Your task to perform on an android device: turn notification dots off Image 0: 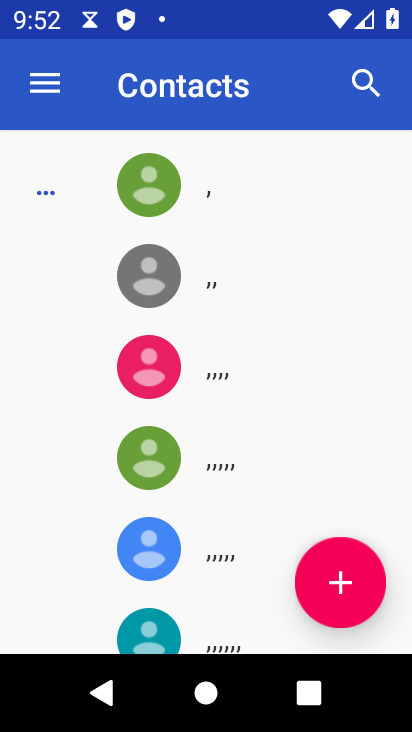
Step 0: press home button
Your task to perform on an android device: turn notification dots off Image 1: 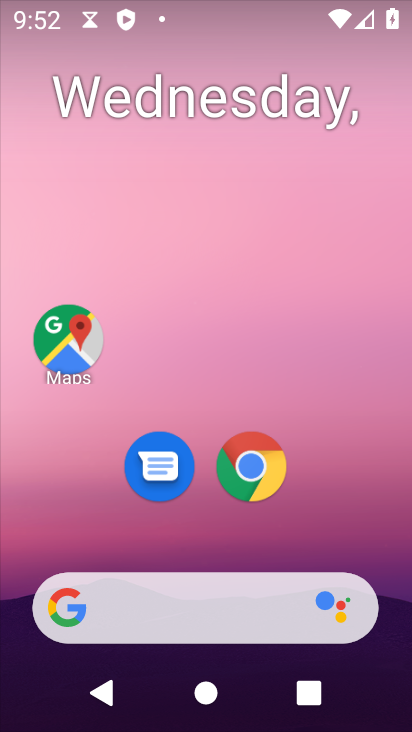
Step 1: drag from (285, 537) to (189, 124)
Your task to perform on an android device: turn notification dots off Image 2: 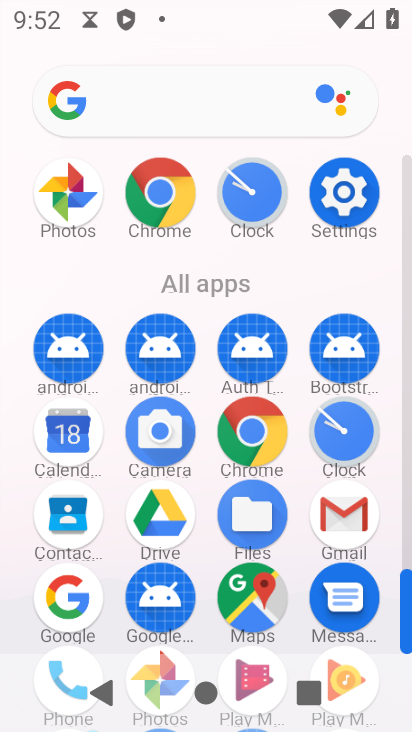
Step 2: click (345, 192)
Your task to perform on an android device: turn notification dots off Image 3: 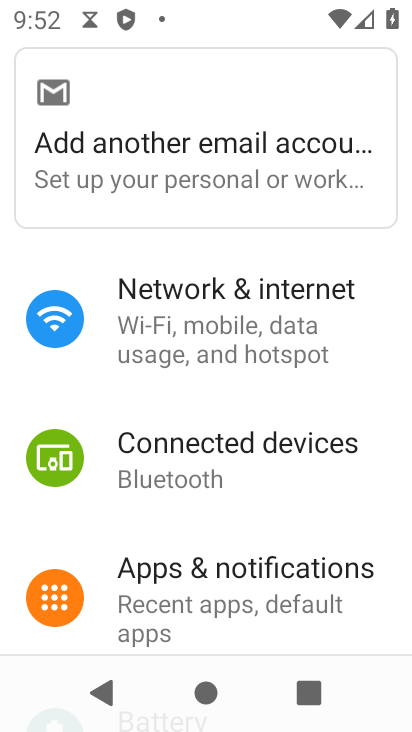
Step 3: click (195, 602)
Your task to perform on an android device: turn notification dots off Image 4: 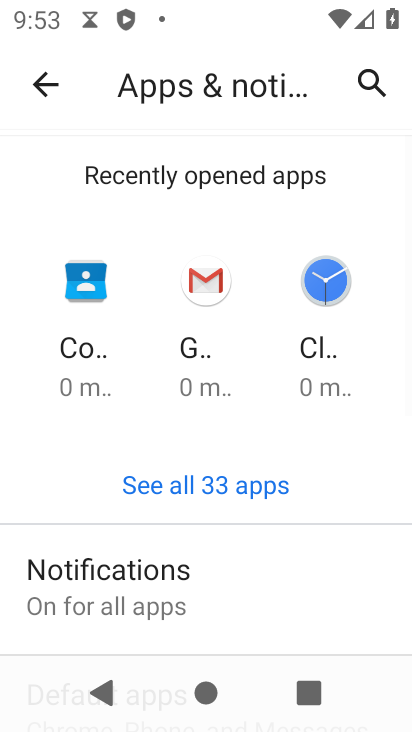
Step 4: click (147, 587)
Your task to perform on an android device: turn notification dots off Image 5: 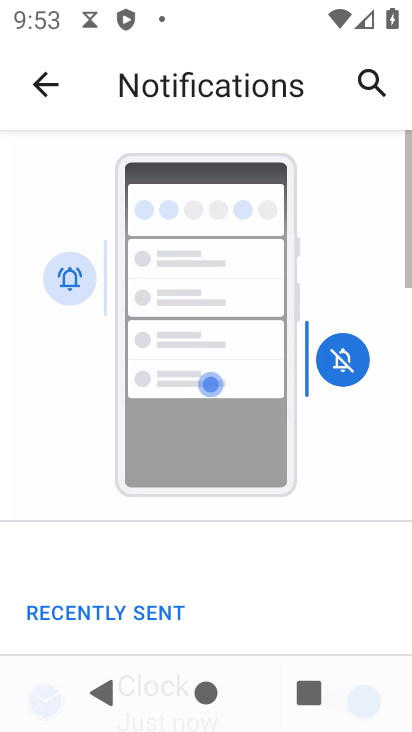
Step 5: drag from (210, 609) to (234, 205)
Your task to perform on an android device: turn notification dots off Image 6: 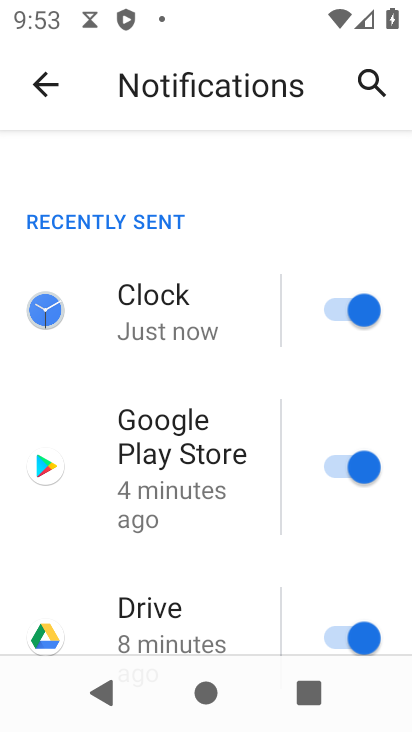
Step 6: drag from (214, 576) to (188, 157)
Your task to perform on an android device: turn notification dots off Image 7: 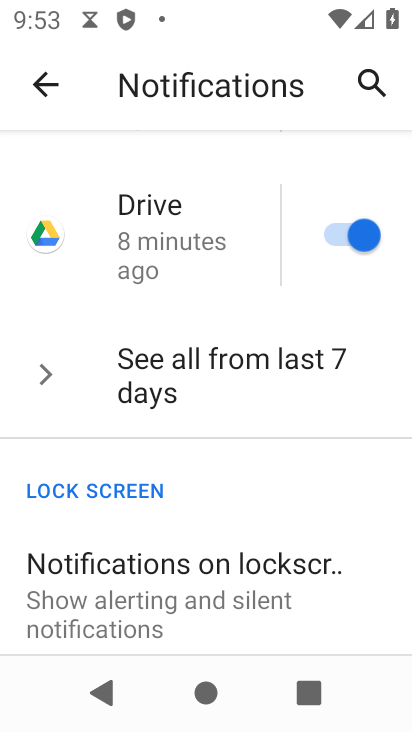
Step 7: drag from (188, 630) to (228, 347)
Your task to perform on an android device: turn notification dots off Image 8: 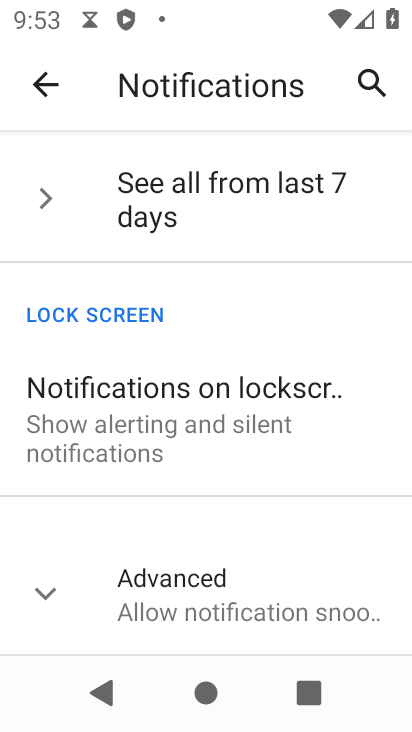
Step 8: click (178, 581)
Your task to perform on an android device: turn notification dots off Image 9: 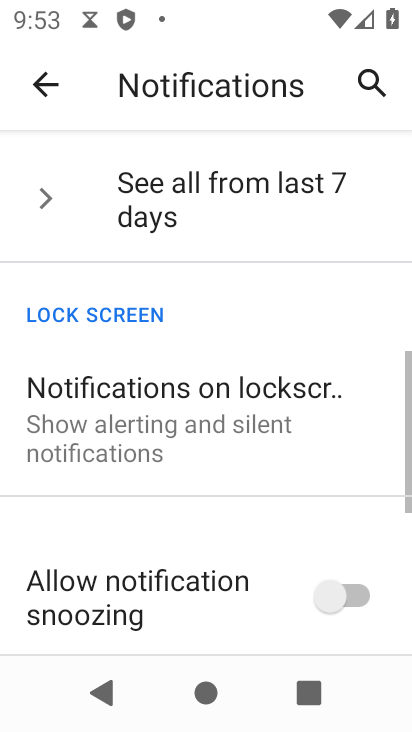
Step 9: drag from (194, 621) to (194, 284)
Your task to perform on an android device: turn notification dots off Image 10: 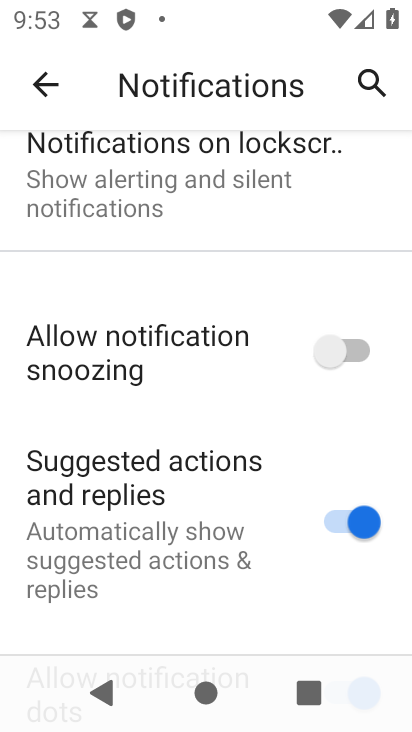
Step 10: drag from (192, 554) to (194, 276)
Your task to perform on an android device: turn notification dots off Image 11: 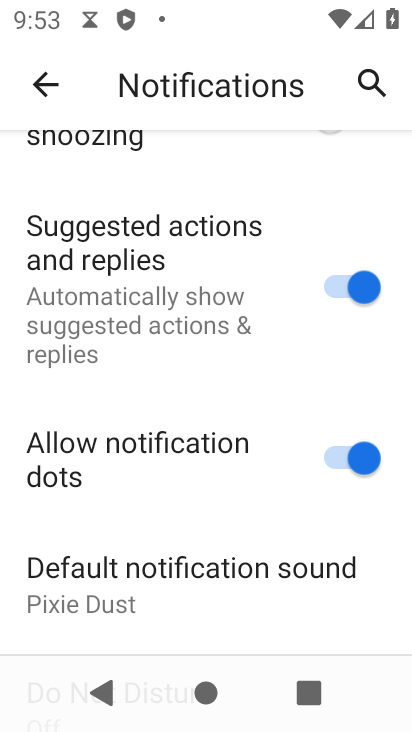
Step 11: click (332, 457)
Your task to perform on an android device: turn notification dots off Image 12: 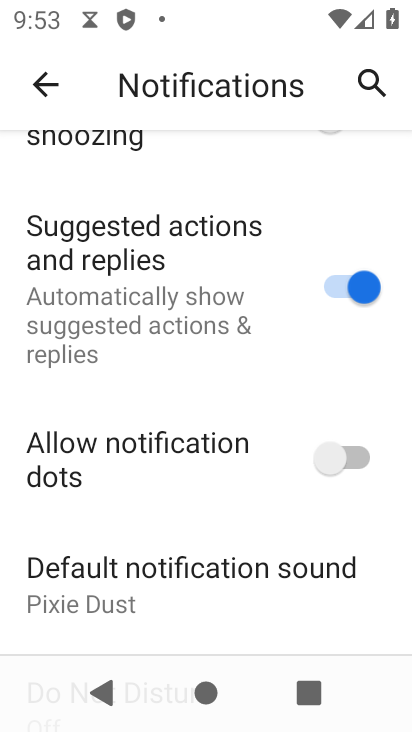
Step 12: task complete